Your task to perform on an android device: Do I have any events this weekend? Image 0: 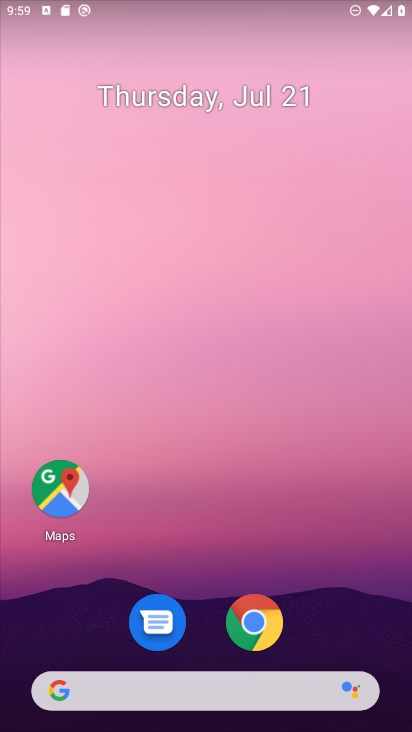
Step 0: drag from (369, 706) to (270, 77)
Your task to perform on an android device: Do I have any events this weekend? Image 1: 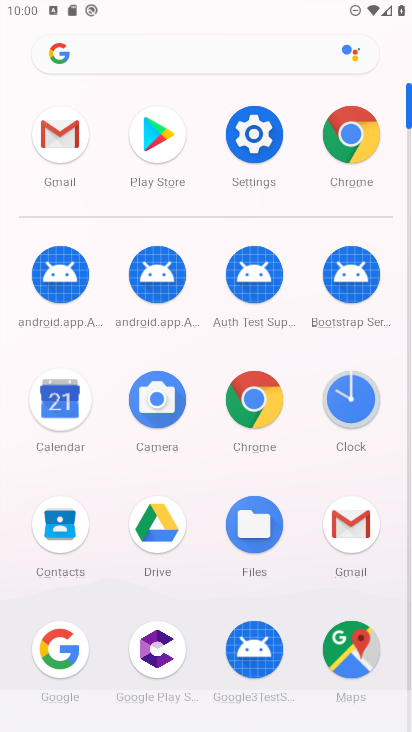
Step 1: click (60, 394)
Your task to perform on an android device: Do I have any events this weekend? Image 2: 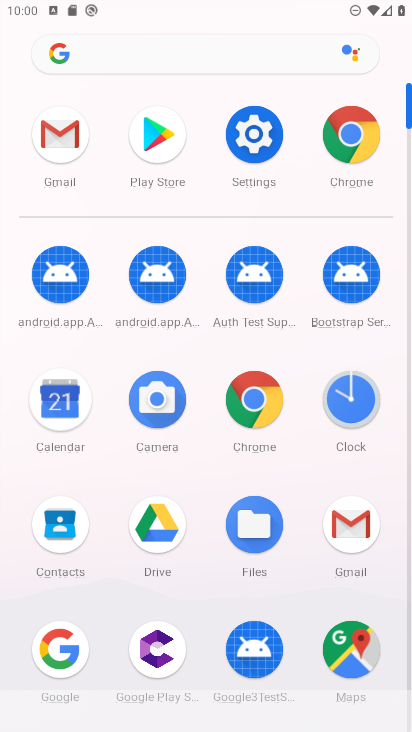
Step 2: click (60, 394)
Your task to perform on an android device: Do I have any events this weekend? Image 3: 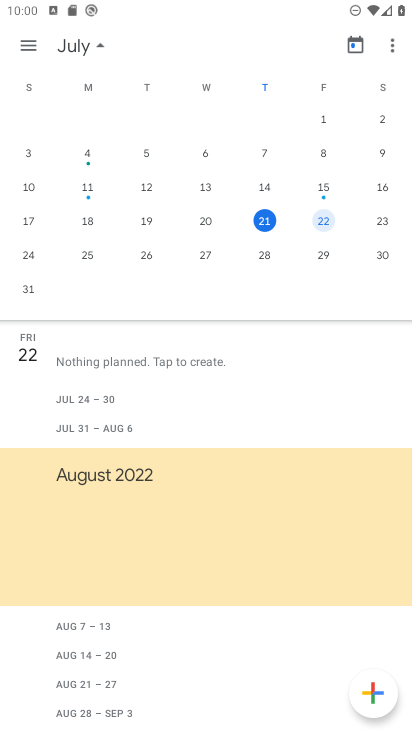
Step 3: click (384, 221)
Your task to perform on an android device: Do I have any events this weekend? Image 4: 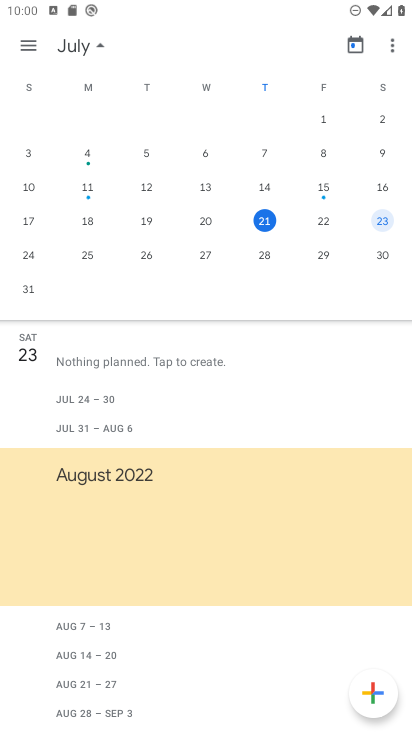
Step 4: task complete